Your task to perform on an android device: Open Amazon Image 0: 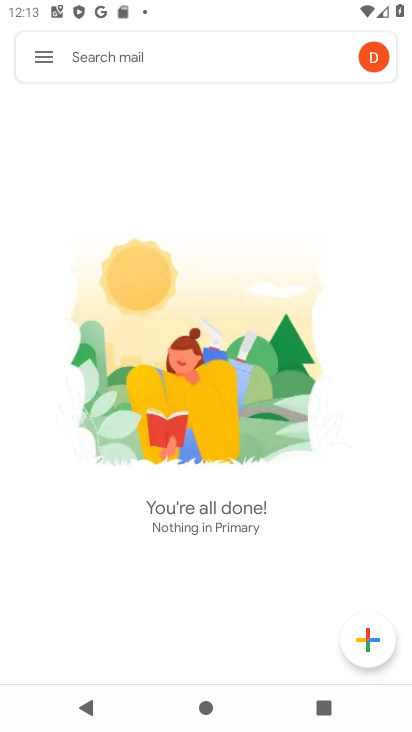
Step 0: press home button
Your task to perform on an android device: Open Amazon Image 1: 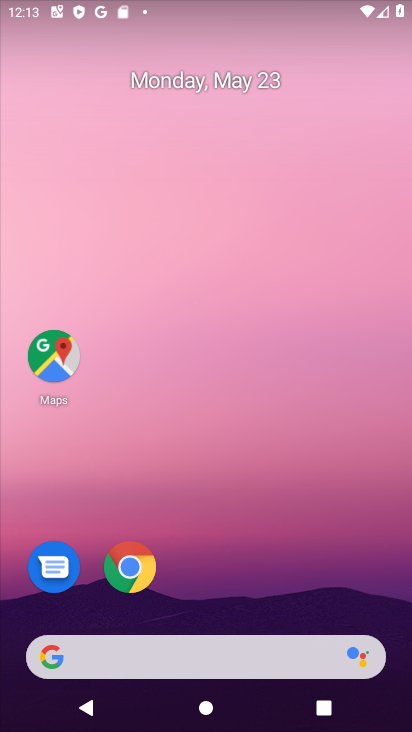
Step 1: click (143, 558)
Your task to perform on an android device: Open Amazon Image 2: 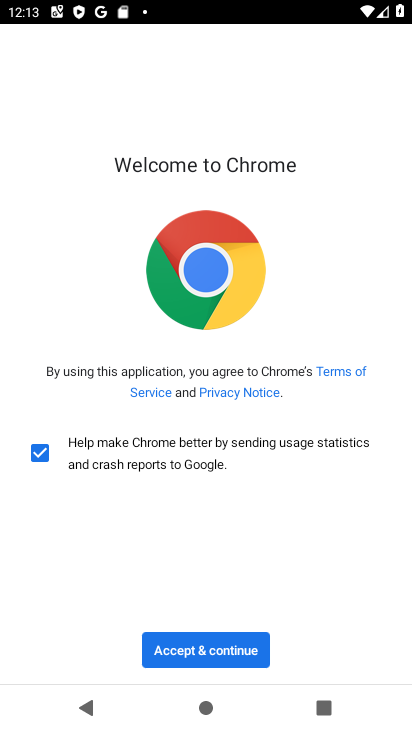
Step 2: click (203, 641)
Your task to perform on an android device: Open Amazon Image 3: 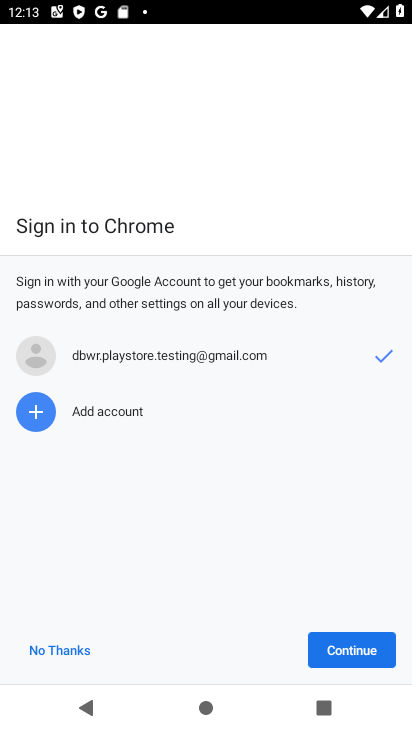
Step 3: click (327, 656)
Your task to perform on an android device: Open Amazon Image 4: 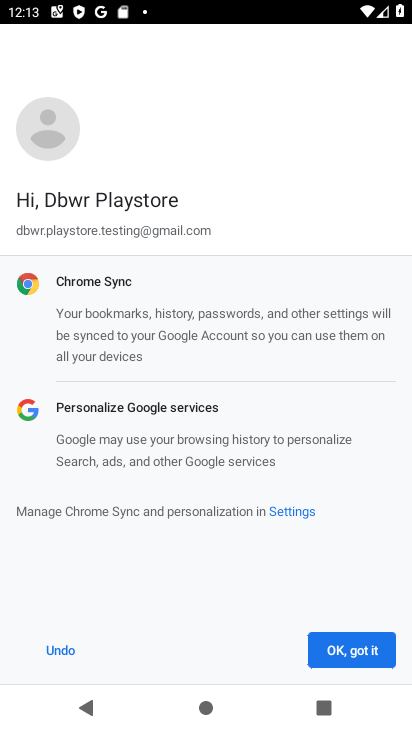
Step 4: click (327, 656)
Your task to perform on an android device: Open Amazon Image 5: 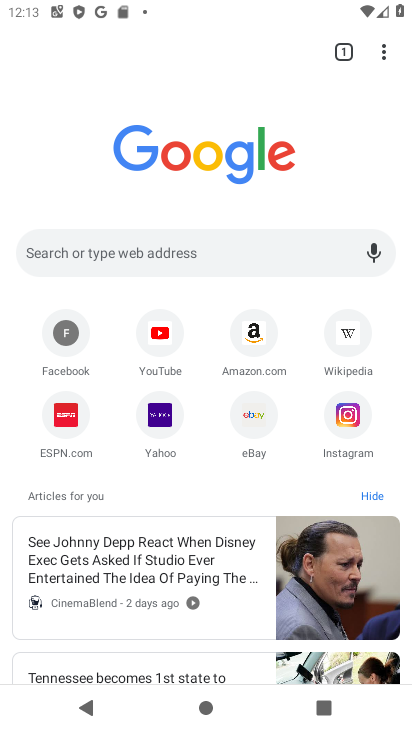
Step 5: click (263, 331)
Your task to perform on an android device: Open Amazon Image 6: 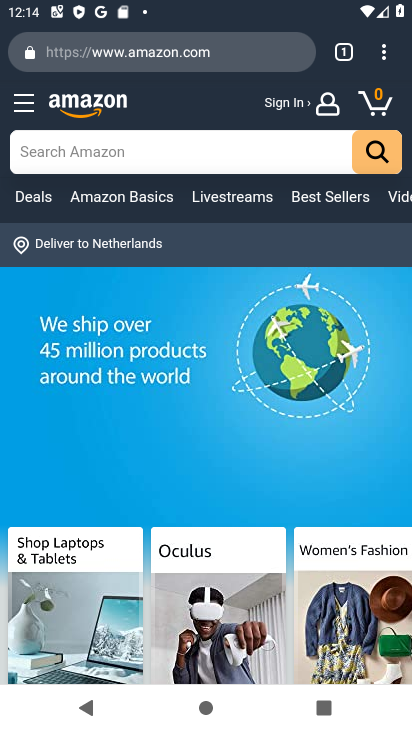
Step 6: task complete